Your task to perform on an android device: turn on translation in the chrome app Image 0: 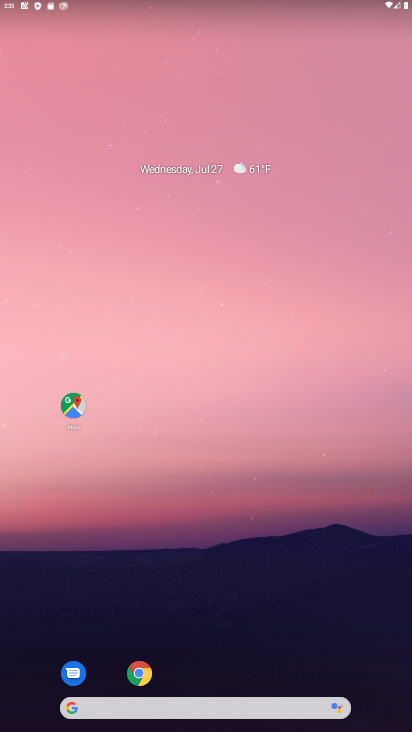
Step 0: click (138, 670)
Your task to perform on an android device: turn on translation in the chrome app Image 1: 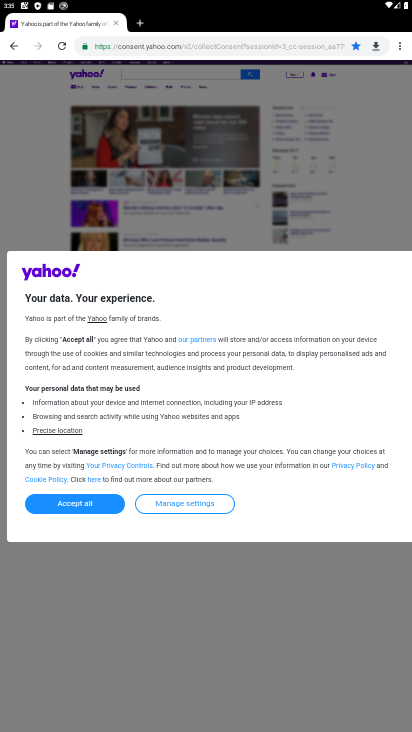
Step 1: click (246, 598)
Your task to perform on an android device: turn on translation in the chrome app Image 2: 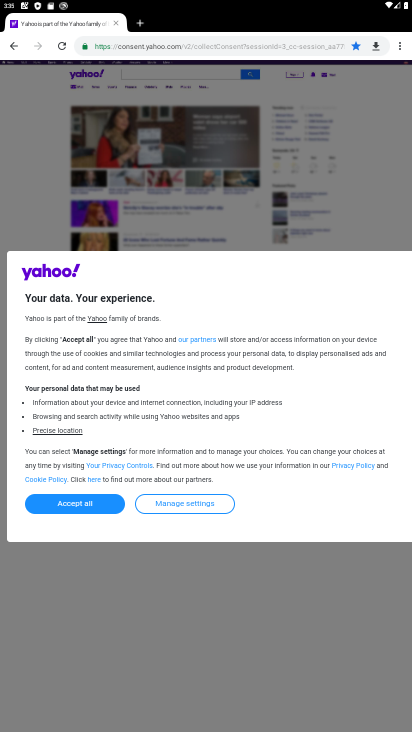
Step 2: click (401, 48)
Your task to perform on an android device: turn on translation in the chrome app Image 3: 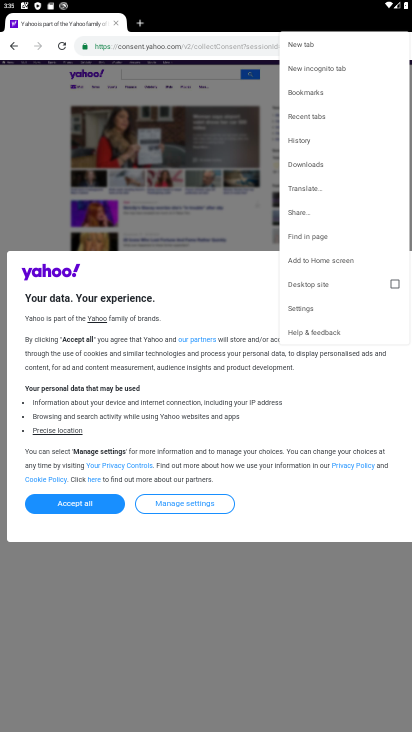
Step 3: click (309, 303)
Your task to perform on an android device: turn on translation in the chrome app Image 4: 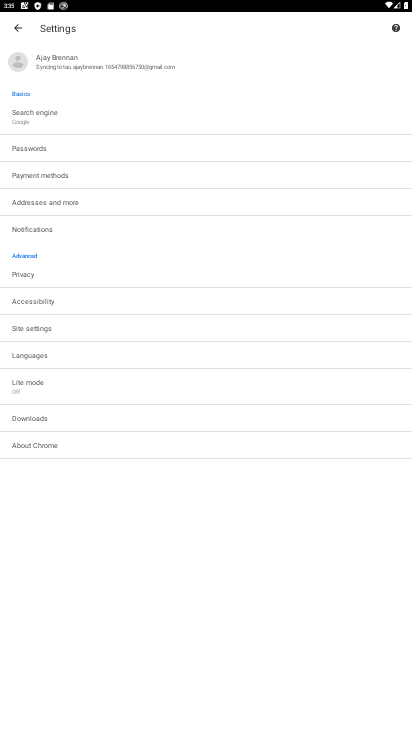
Step 4: click (42, 348)
Your task to perform on an android device: turn on translation in the chrome app Image 5: 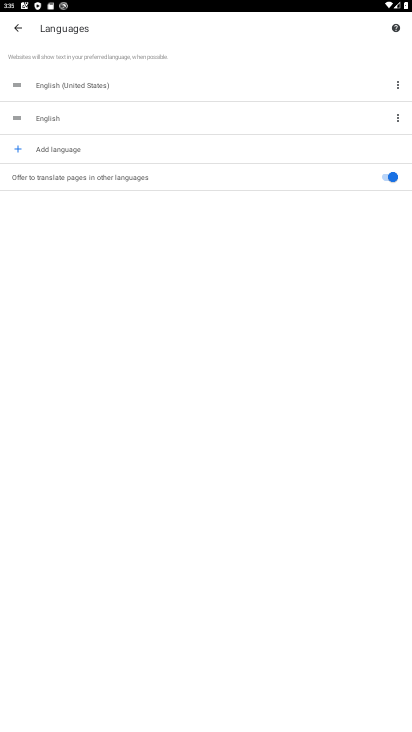
Step 5: task complete